Your task to perform on an android device: turn off location Image 0: 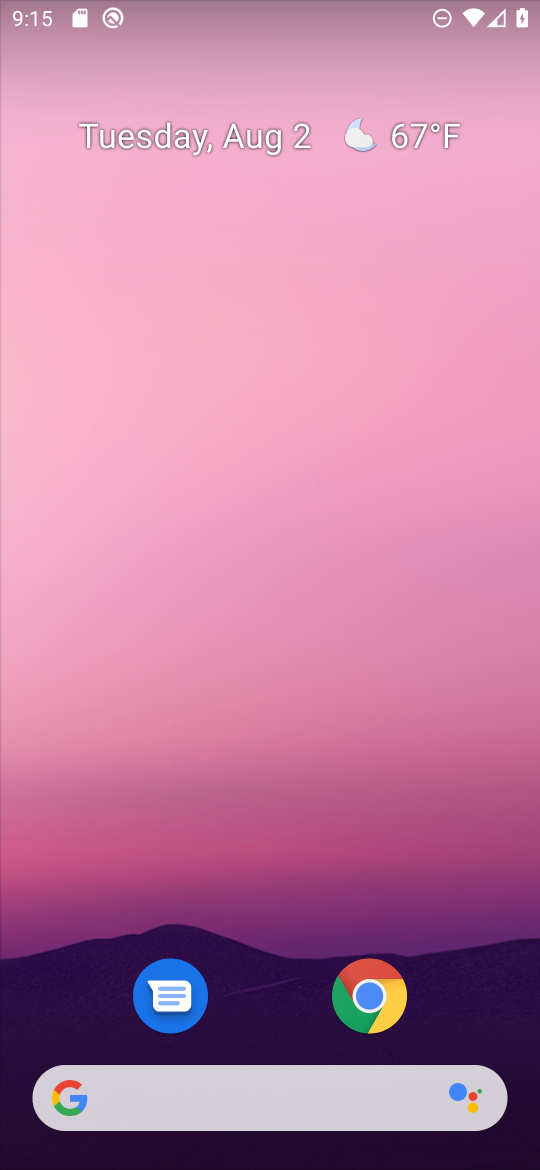
Step 0: drag from (277, 972) to (253, 120)
Your task to perform on an android device: turn off location Image 1: 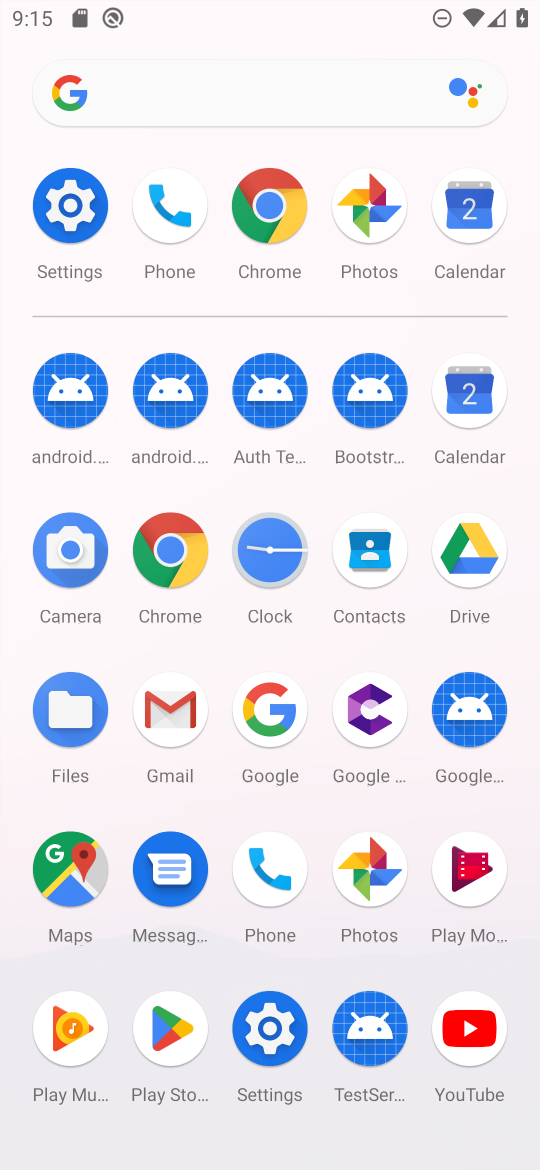
Step 1: click (261, 1021)
Your task to perform on an android device: turn off location Image 2: 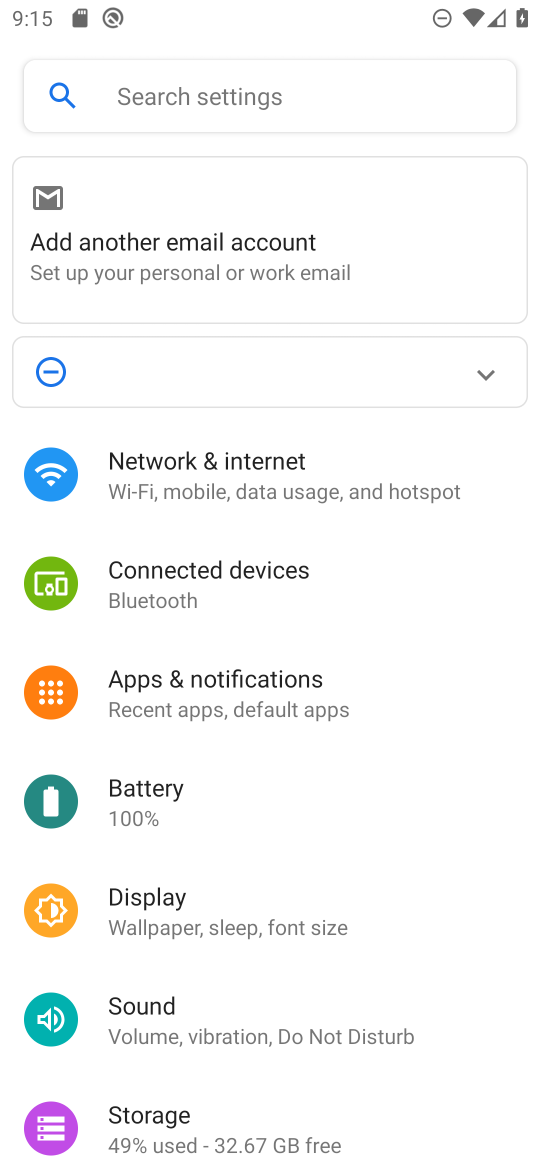
Step 2: drag from (231, 1097) to (178, 511)
Your task to perform on an android device: turn off location Image 3: 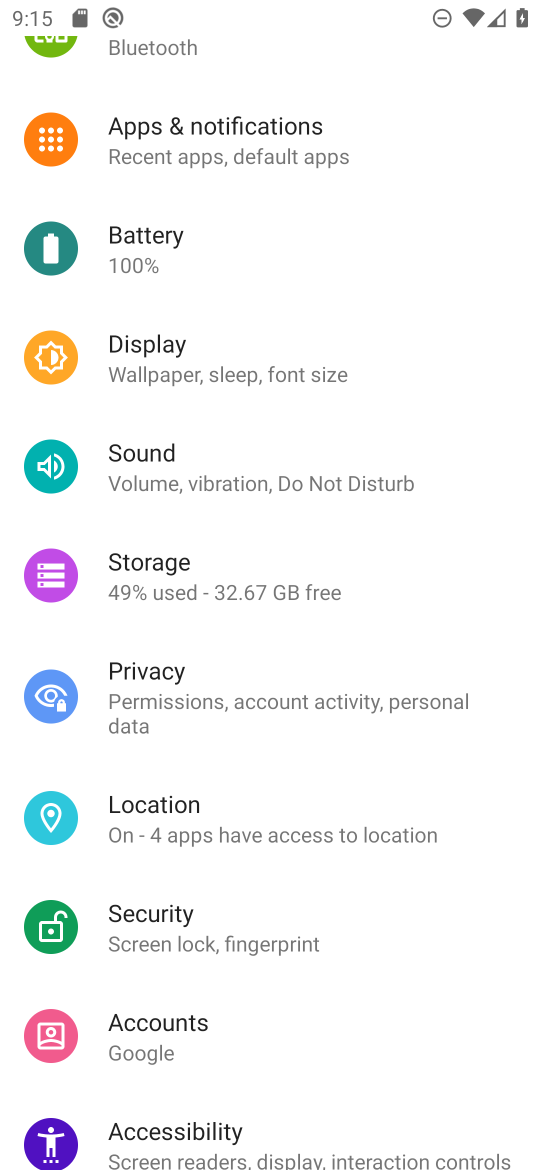
Step 3: click (162, 801)
Your task to perform on an android device: turn off location Image 4: 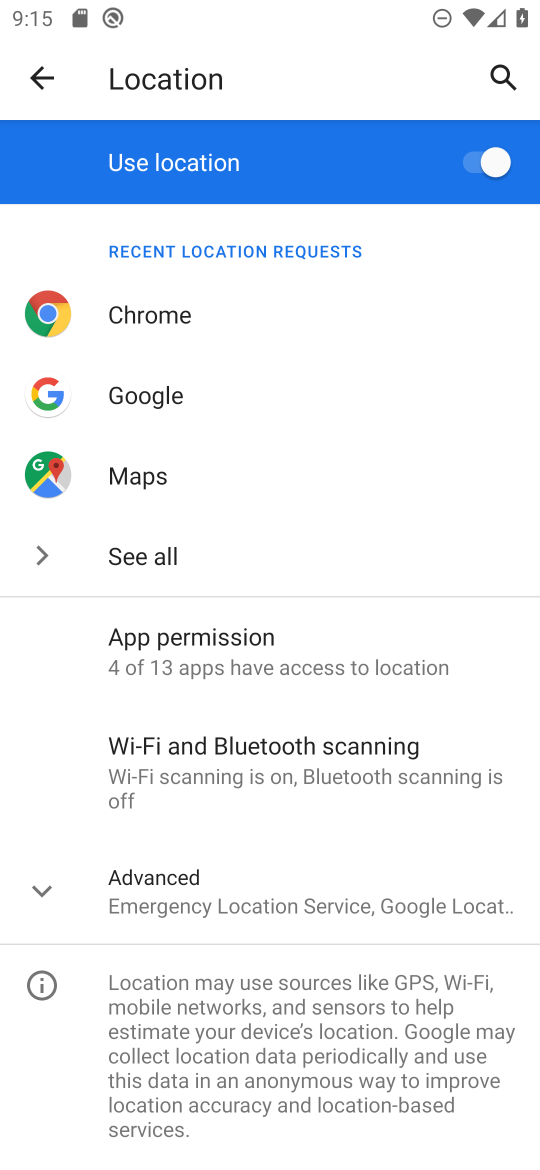
Step 4: task complete